Your task to perform on an android device: Open calendar and show me the fourth week of next month Image 0: 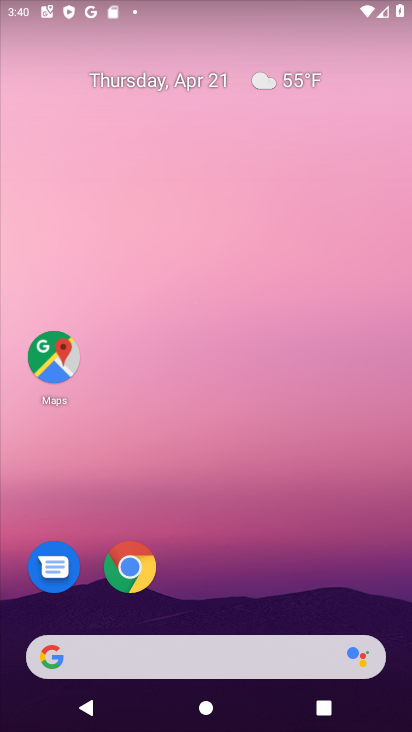
Step 0: drag from (193, 608) to (265, 126)
Your task to perform on an android device: Open calendar and show me the fourth week of next month Image 1: 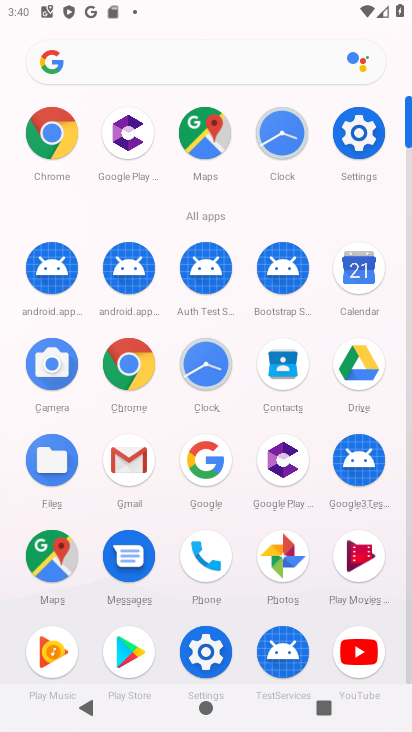
Step 1: click (364, 268)
Your task to perform on an android device: Open calendar and show me the fourth week of next month Image 2: 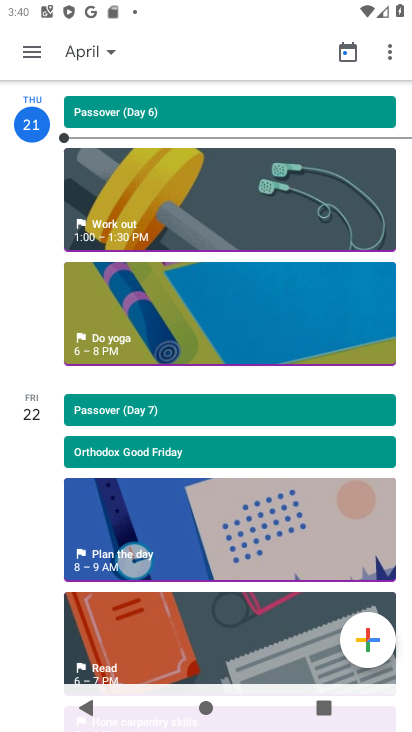
Step 2: click (33, 55)
Your task to perform on an android device: Open calendar and show me the fourth week of next month Image 3: 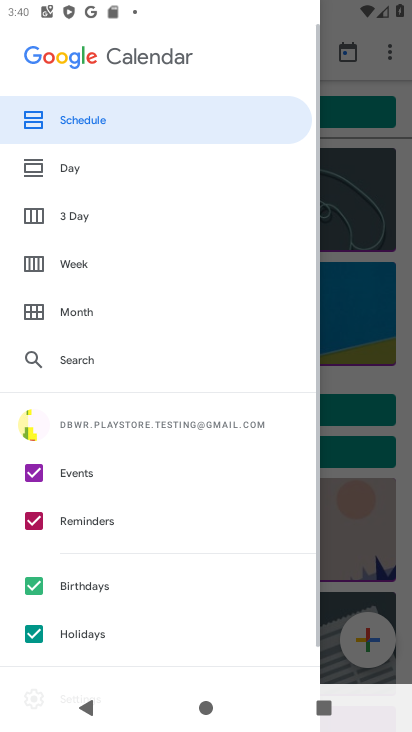
Step 3: click (83, 267)
Your task to perform on an android device: Open calendar and show me the fourth week of next month Image 4: 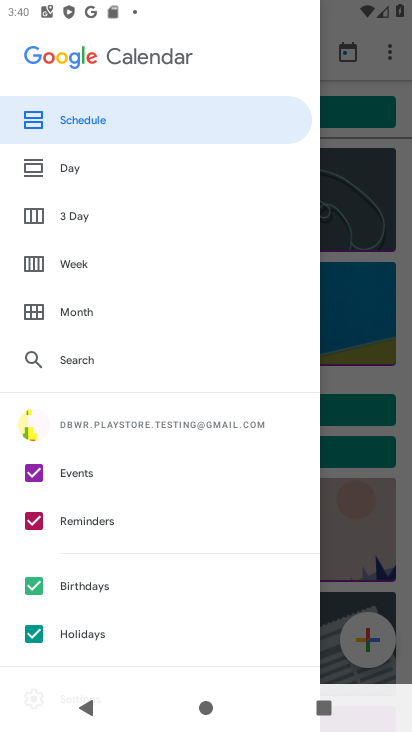
Step 4: click (91, 256)
Your task to perform on an android device: Open calendar and show me the fourth week of next month Image 5: 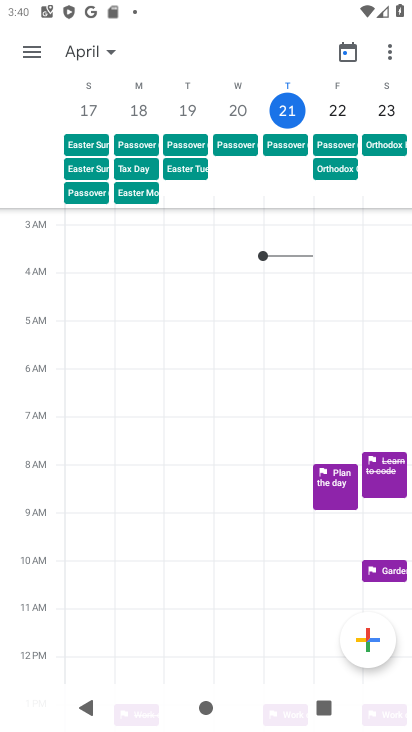
Step 5: drag from (388, 111) to (53, 99)
Your task to perform on an android device: Open calendar and show me the fourth week of next month Image 6: 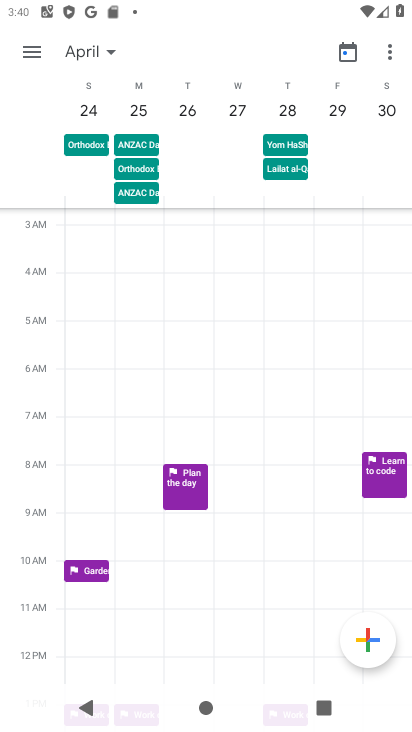
Step 6: drag from (387, 108) to (68, 104)
Your task to perform on an android device: Open calendar and show me the fourth week of next month Image 7: 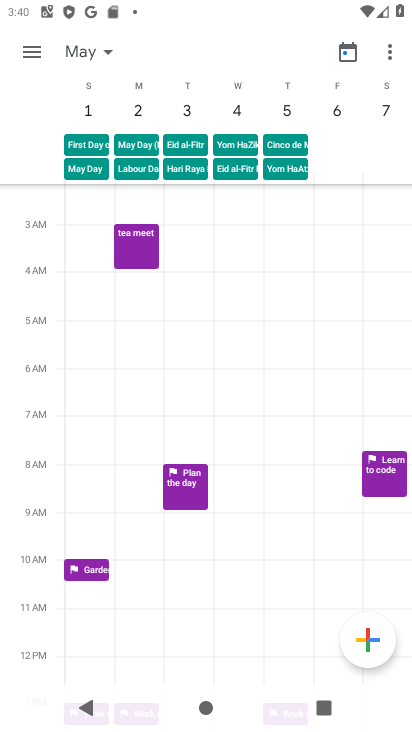
Step 7: drag from (393, 103) to (21, 109)
Your task to perform on an android device: Open calendar and show me the fourth week of next month Image 8: 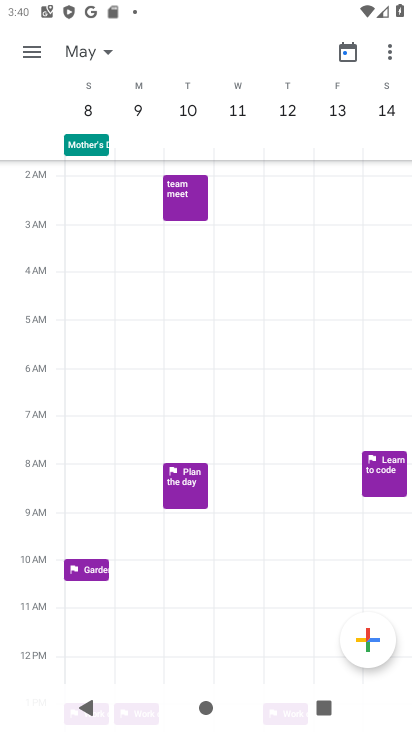
Step 8: drag from (392, 108) to (60, 112)
Your task to perform on an android device: Open calendar and show me the fourth week of next month Image 9: 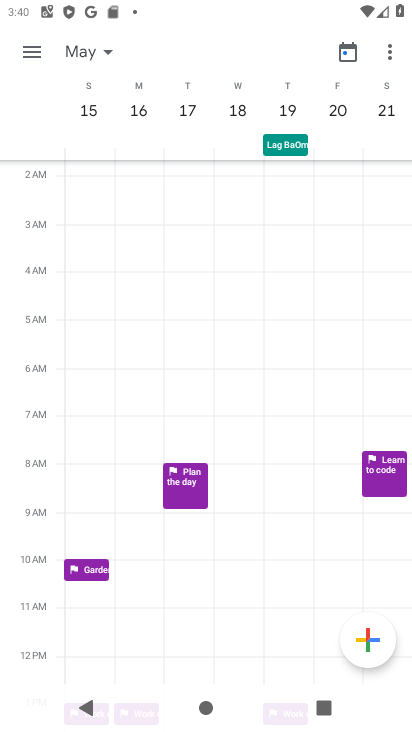
Step 9: drag from (385, 105) to (46, 107)
Your task to perform on an android device: Open calendar and show me the fourth week of next month Image 10: 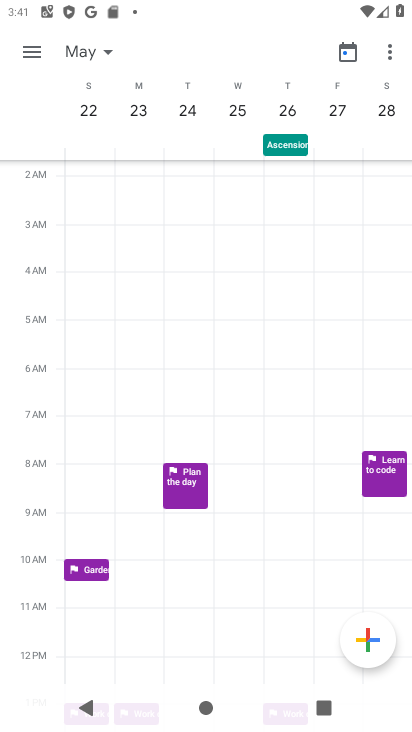
Step 10: click (89, 106)
Your task to perform on an android device: Open calendar and show me the fourth week of next month Image 11: 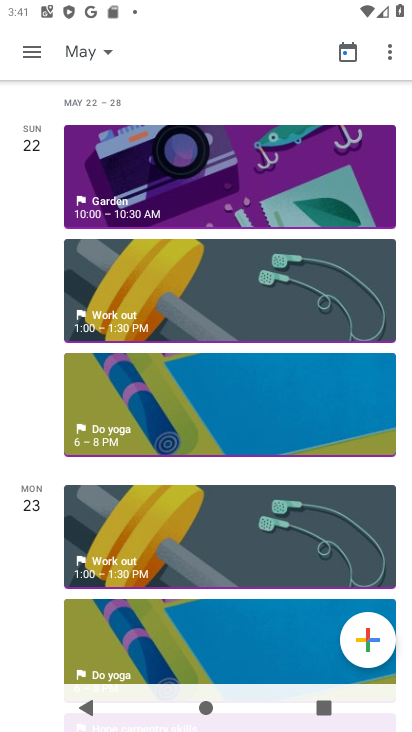
Step 11: task complete